Your task to perform on an android device: open app "Reddit" (install if not already installed) and go to login screen Image 0: 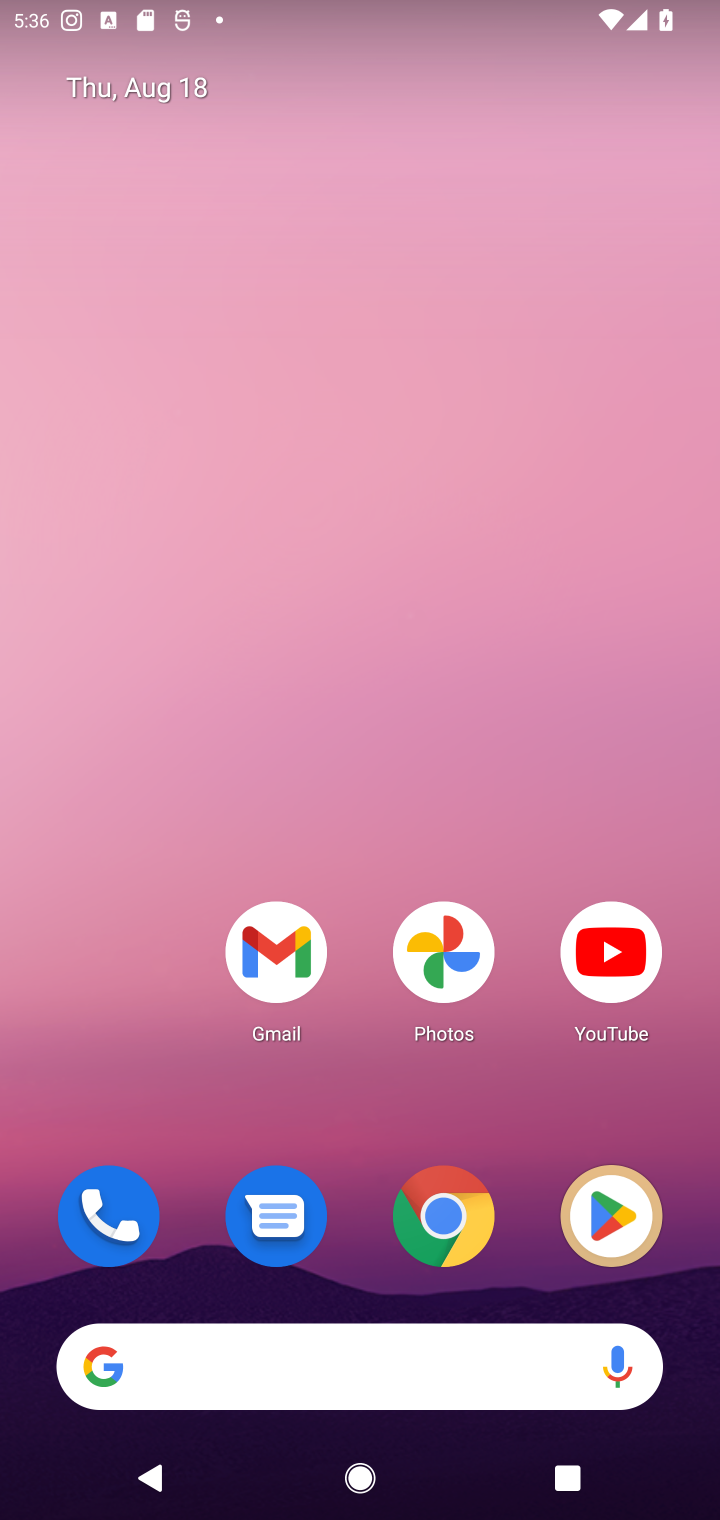
Step 0: click (623, 1196)
Your task to perform on an android device: open app "Reddit" (install if not already installed) and go to login screen Image 1: 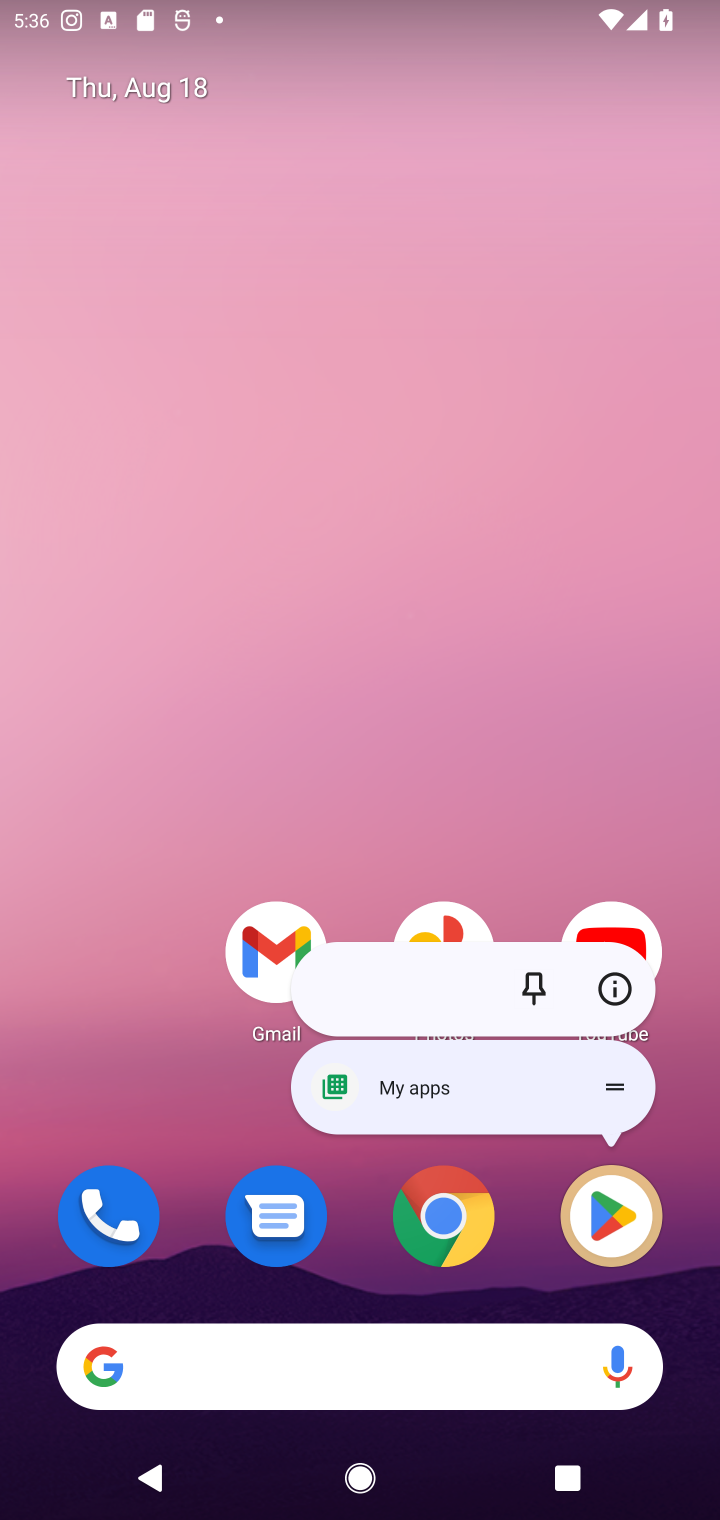
Step 1: click (602, 1216)
Your task to perform on an android device: open app "Reddit" (install if not already installed) and go to login screen Image 2: 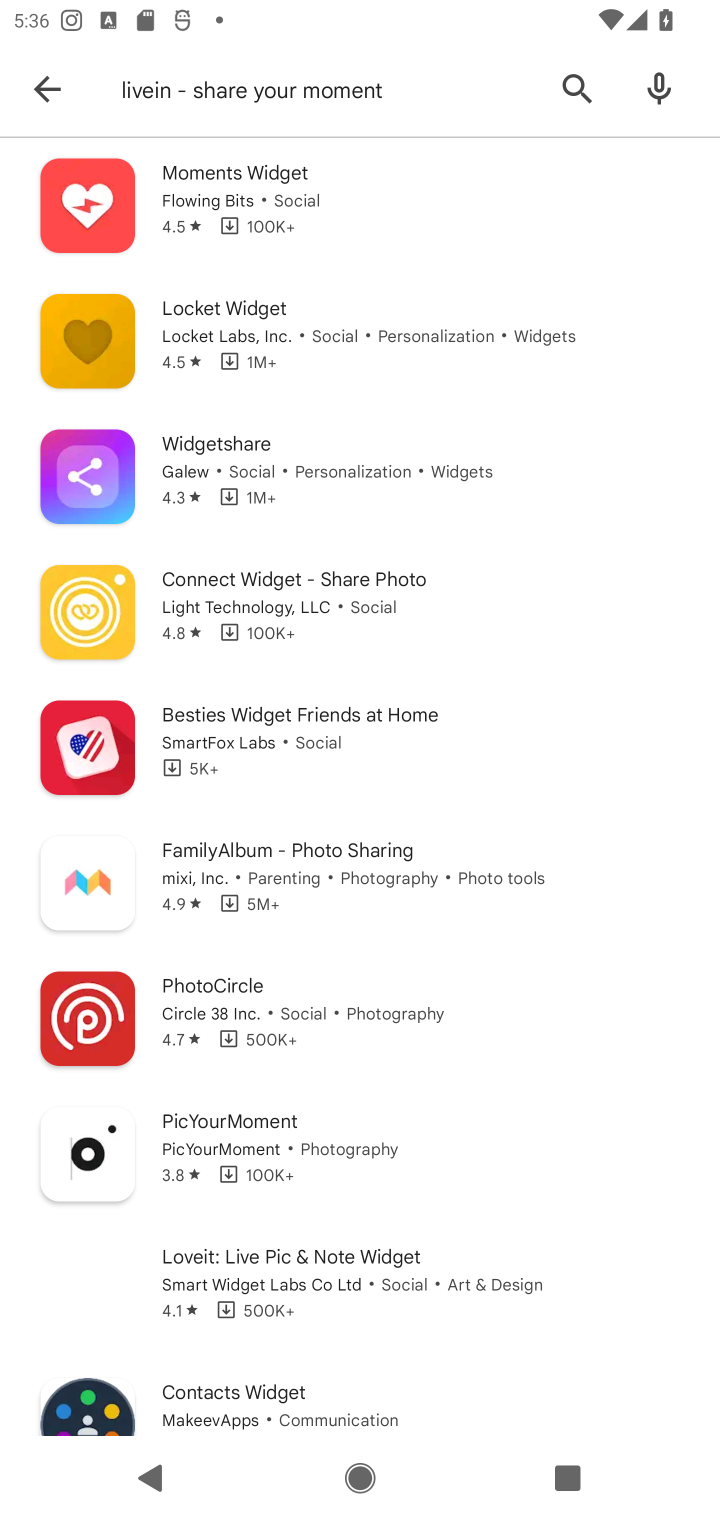
Step 2: click (572, 83)
Your task to perform on an android device: open app "Reddit" (install if not already installed) and go to login screen Image 3: 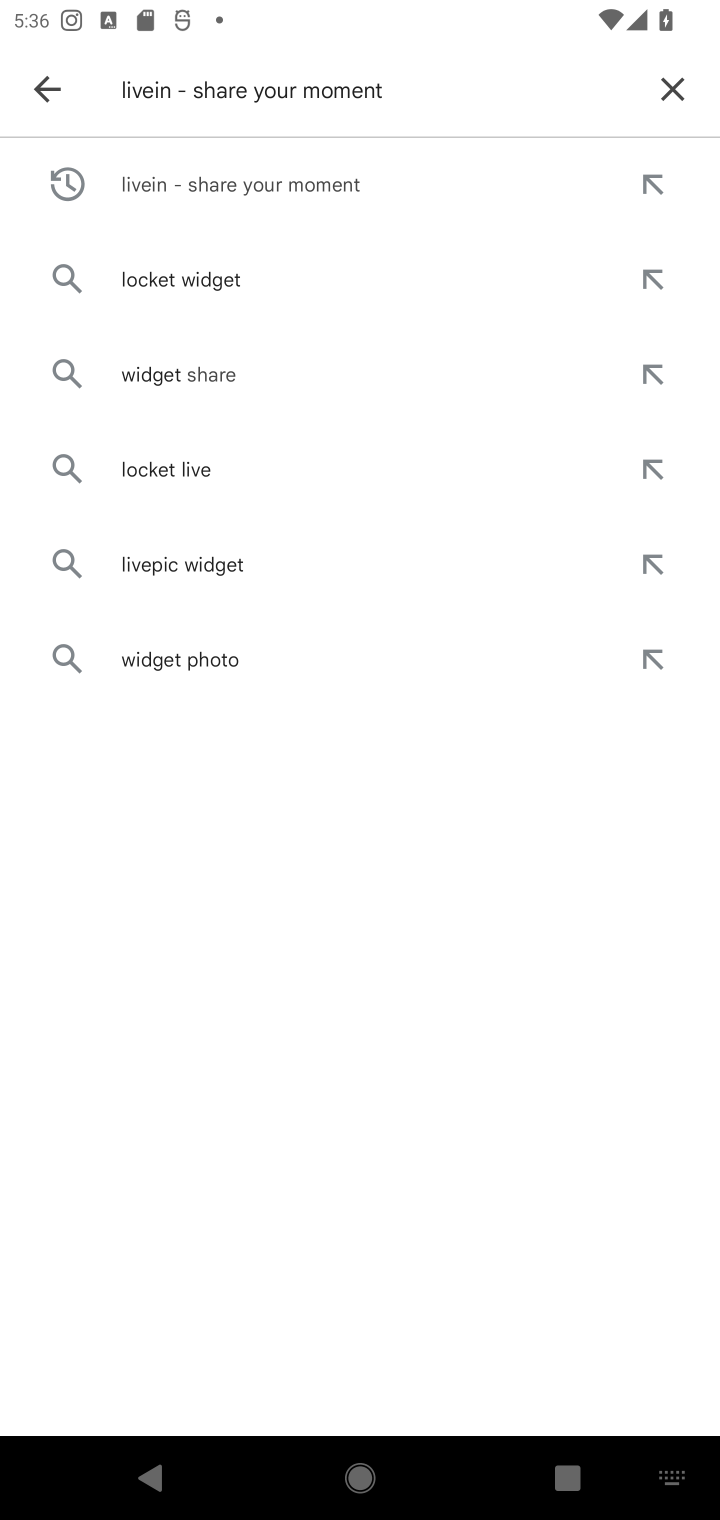
Step 3: click (657, 95)
Your task to perform on an android device: open app "Reddit" (install if not already installed) and go to login screen Image 4: 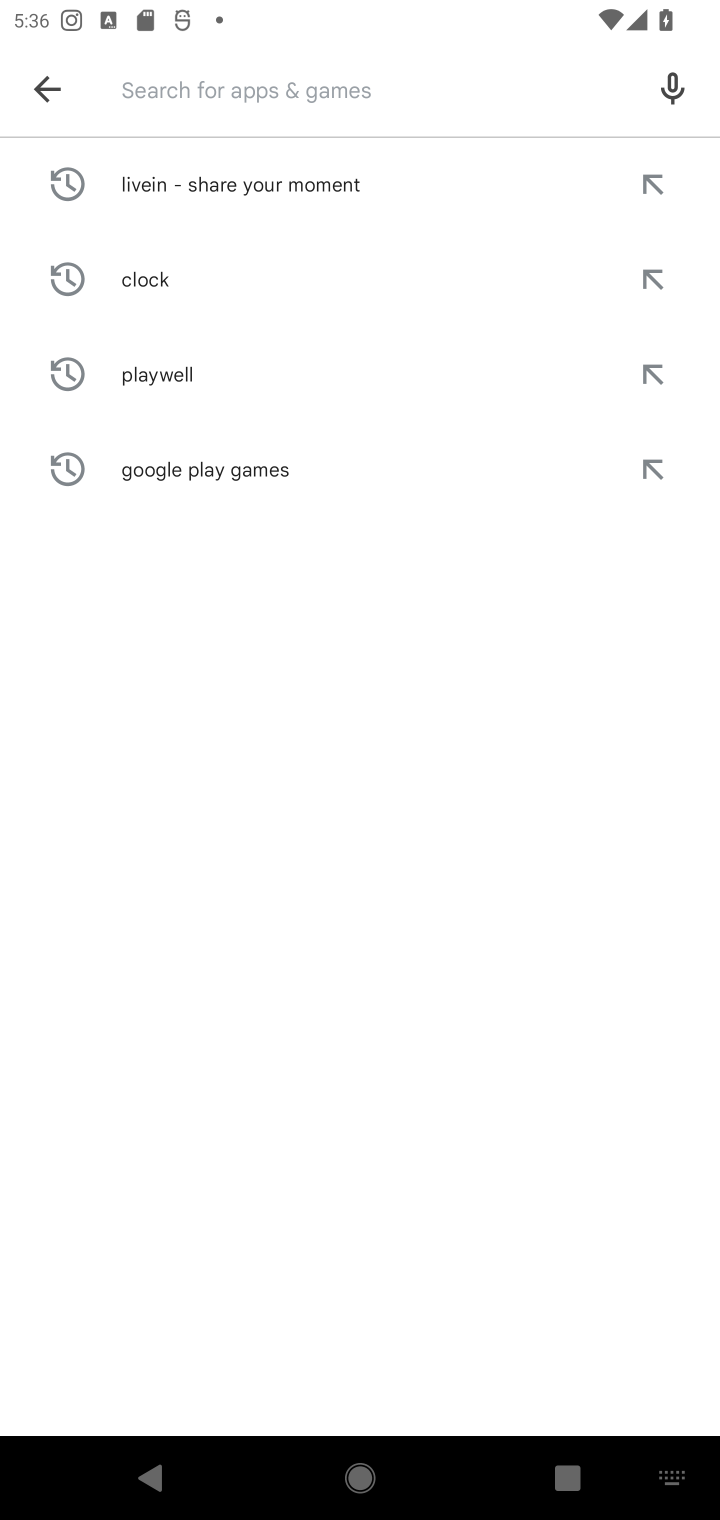
Step 4: type "Reddit"
Your task to perform on an android device: open app "Reddit" (install if not already installed) and go to login screen Image 5: 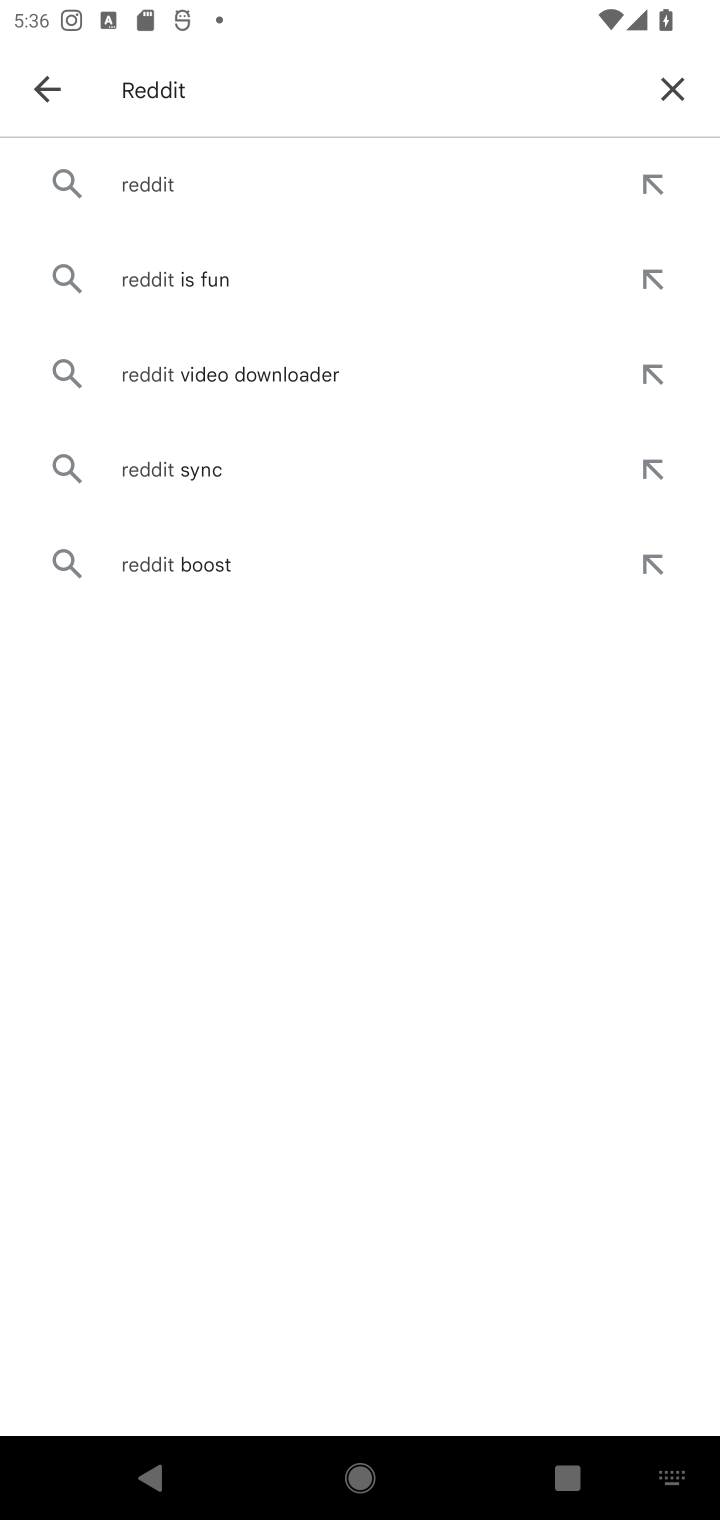
Step 5: click (232, 182)
Your task to perform on an android device: open app "Reddit" (install if not already installed) and go to login screen Image 6: 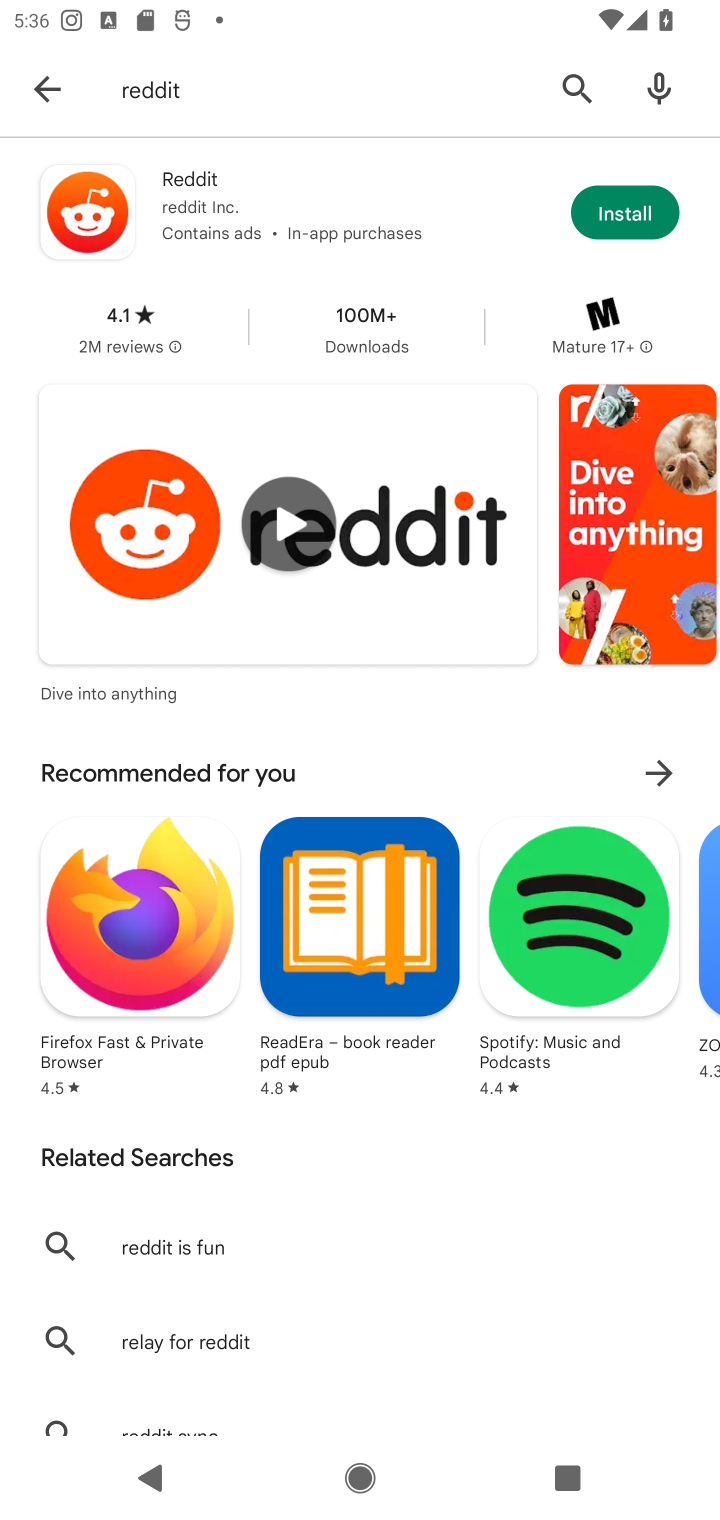
Step 6: click (634, 225)
Your task to perform on an android device: open app "Reddit" (install if not already installed) and go to login screen Image 7: 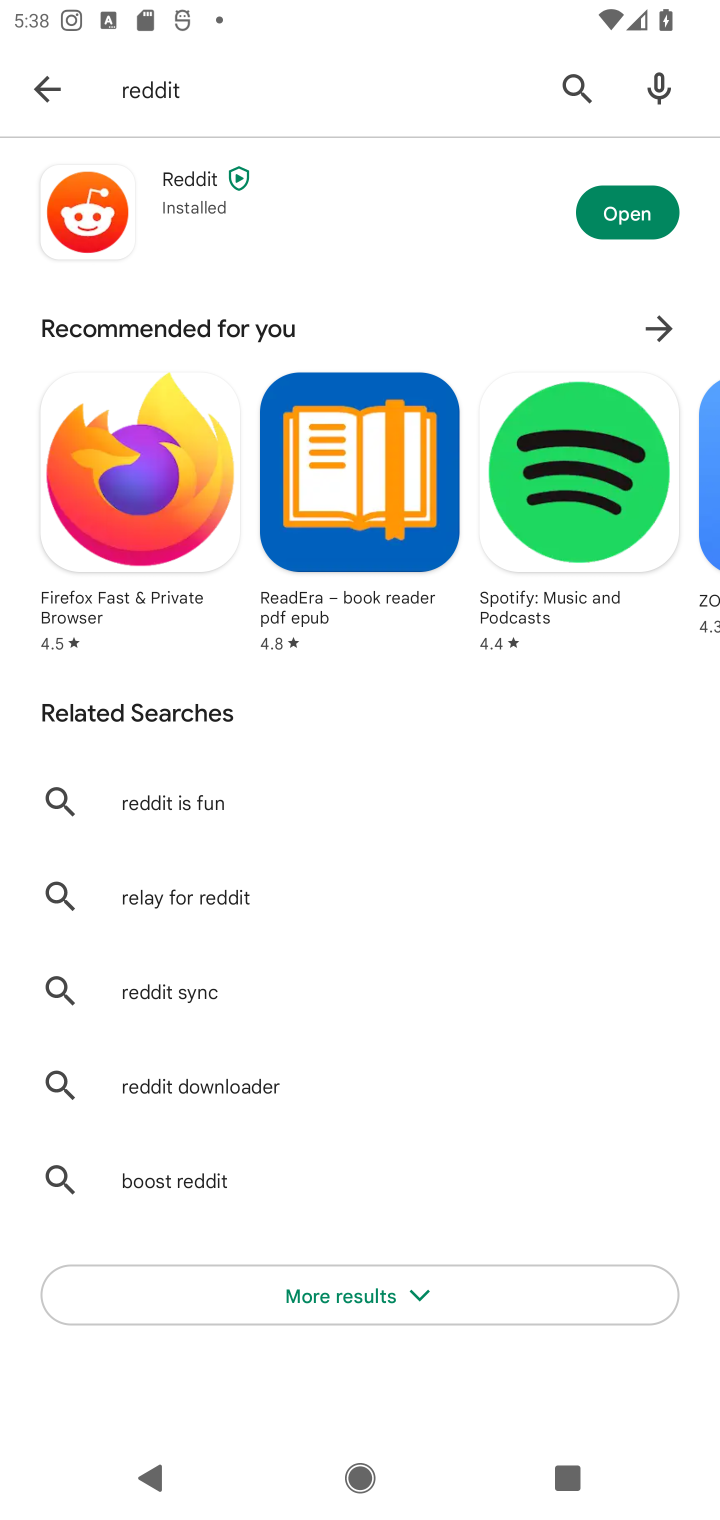
Step 7: click (637, 210)
Your task to perform on an android device: open app "Reddit" (install if not already installed) and go to login screen Image 8: 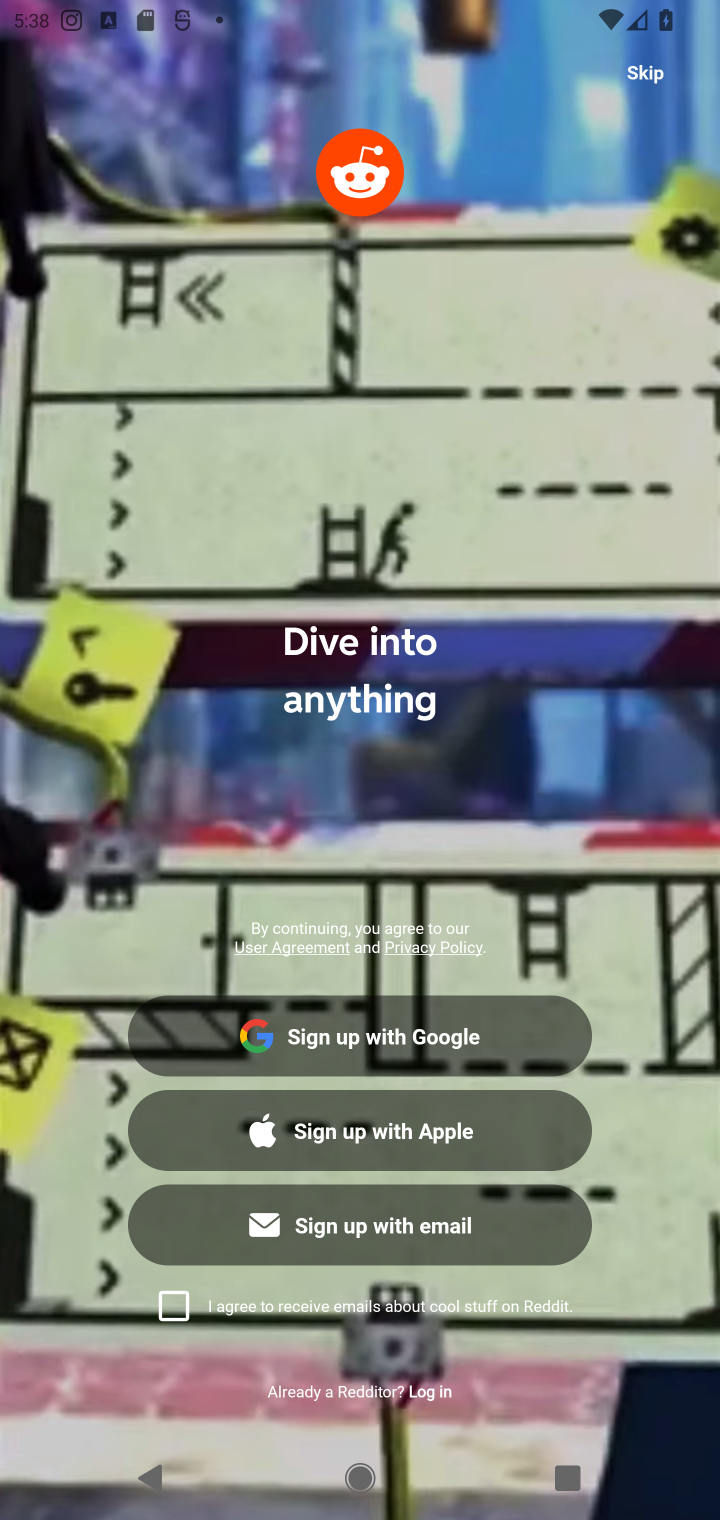
Step 8: task complete